Your task to perform on an android device: Open ESPN.com Image 0: 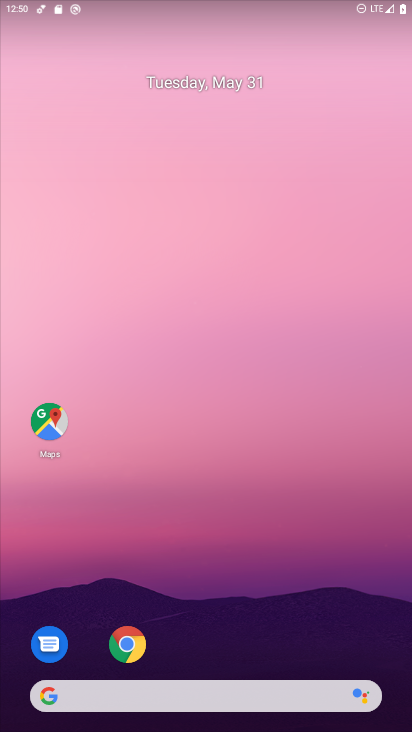
Step 0: drag from (228, 616) to (238, 427)
Your task to perform on an android device: Open ESPN.com Image 1: 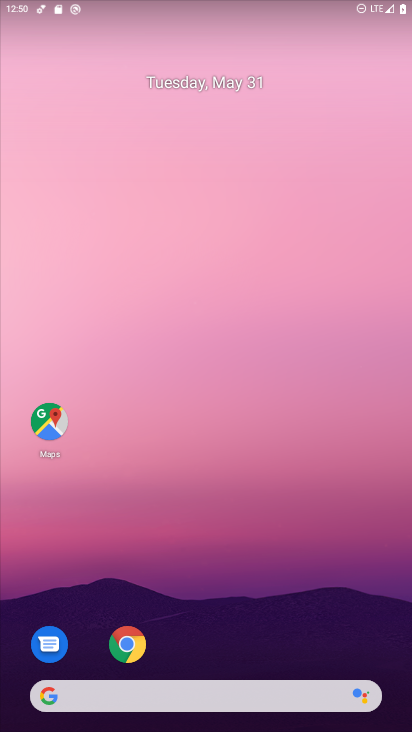
Step 1: drag from (198, 517) to (224, 177)
Your task to perform on an android device: Open ESPN.com Image 2: 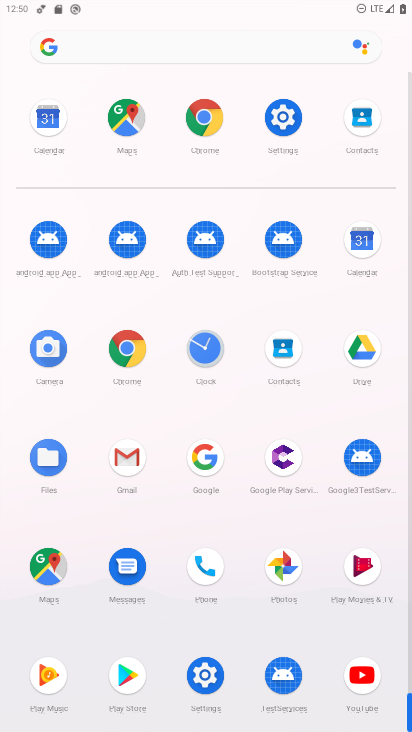
Step 2: click (141, 45)
Your task to perform on an android device: Open ESPN.com Image 3: 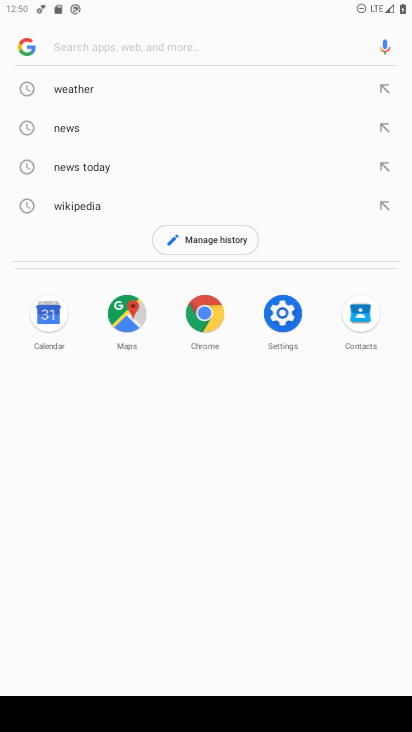
Step 3: type "ESPN.com"
Your task to perform on an android device: Open ESPN.com Image 4: 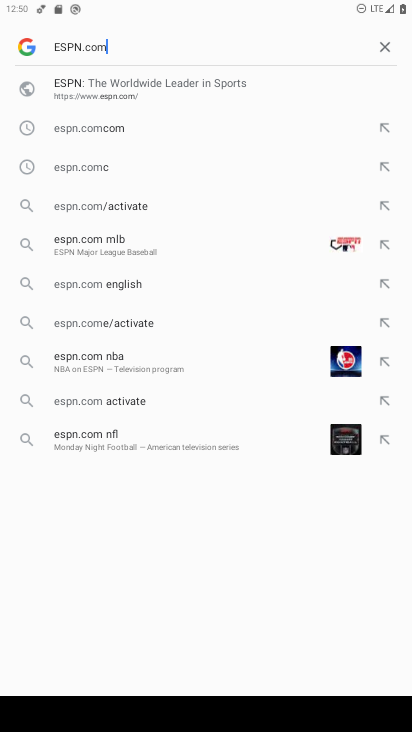
Step 4: click (106, 79)
Your task to perform on an android device: Open ESPN.com Image 5: 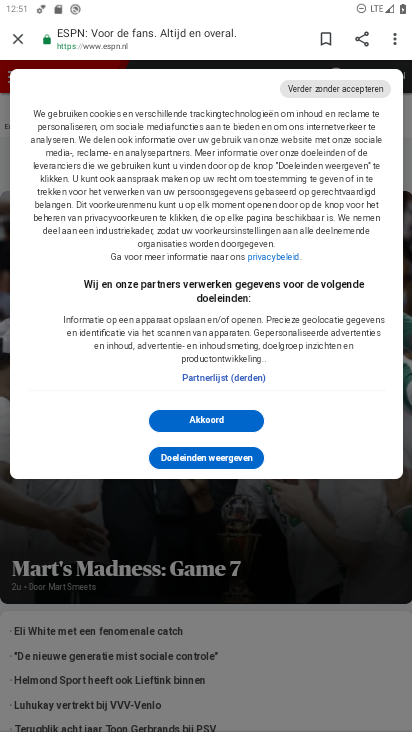
Step 5: task complete